Your task to perform on an android device: stop showing notifications on the lock screen Image 0: 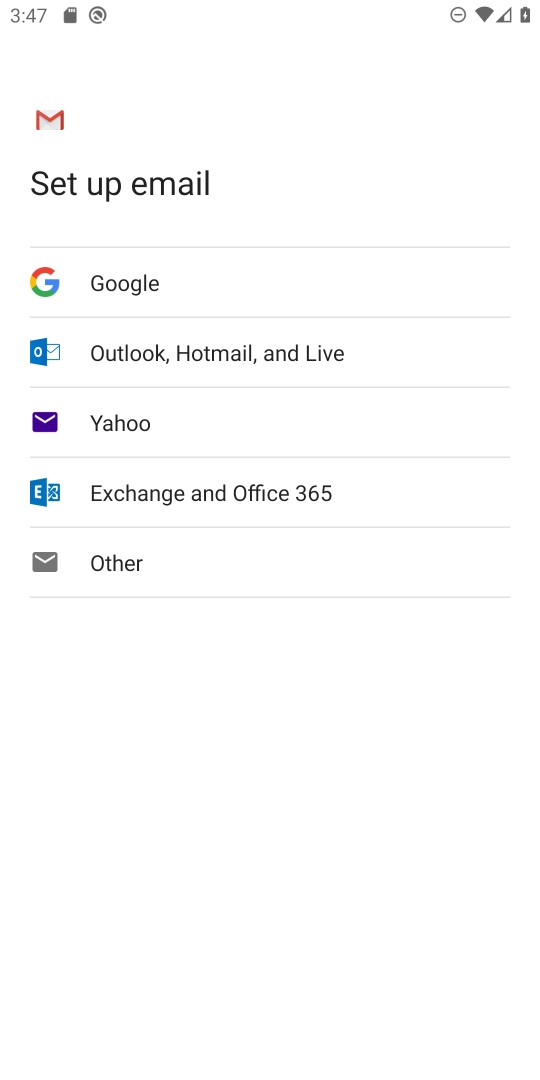
Step 0: press home button
Your task to perform on an android device: stop showing notifications on the lock screen Image 1: 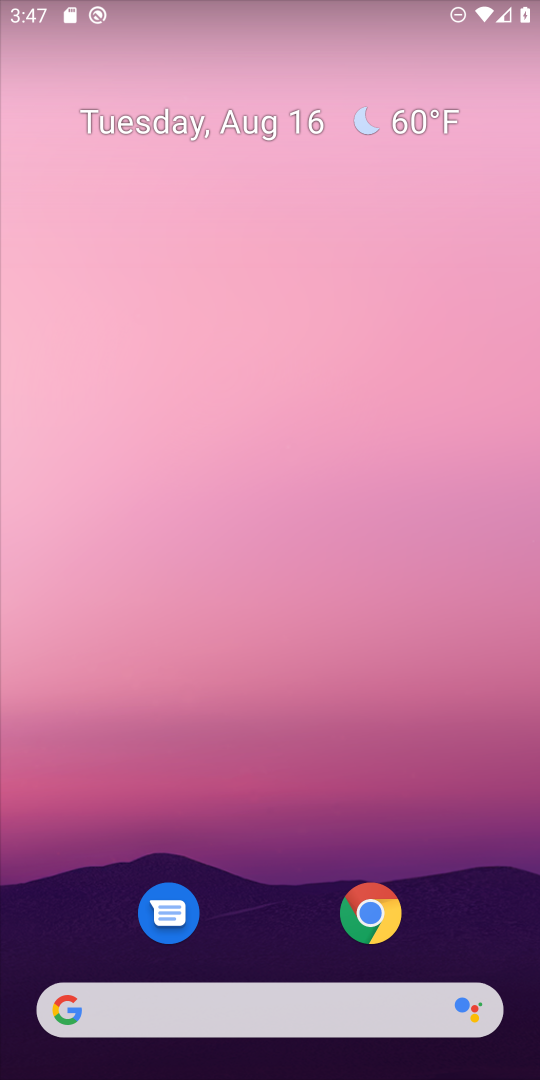
Step 1: drag from (500, 942) to (425, 150)
Your task to perform on an android device: stop showing notifications on the lock screen Image 2: 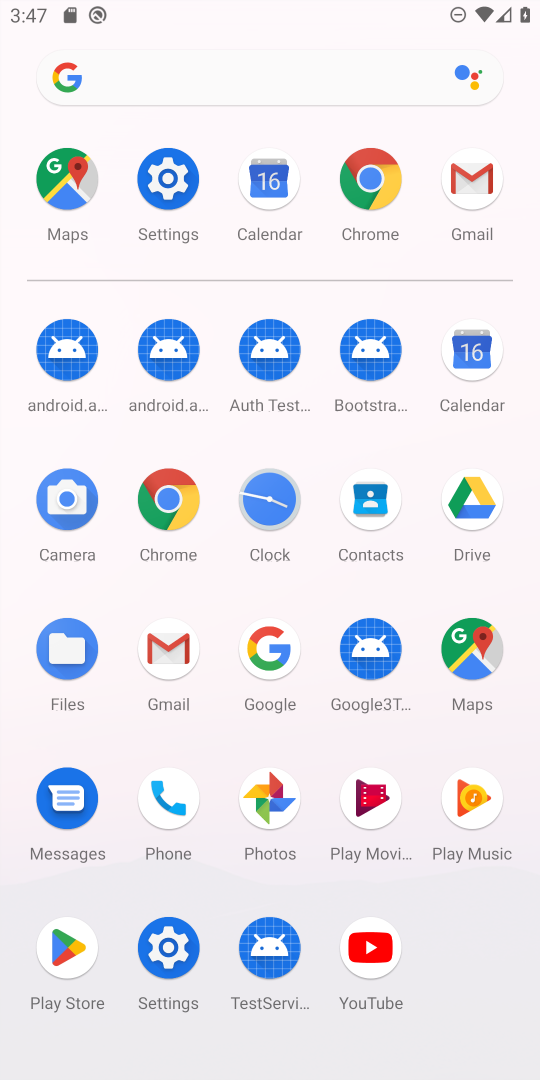
Step 2: click (169, 943)
Your task to perform on an android device: stop showing notifications on the lock screen Image 3: 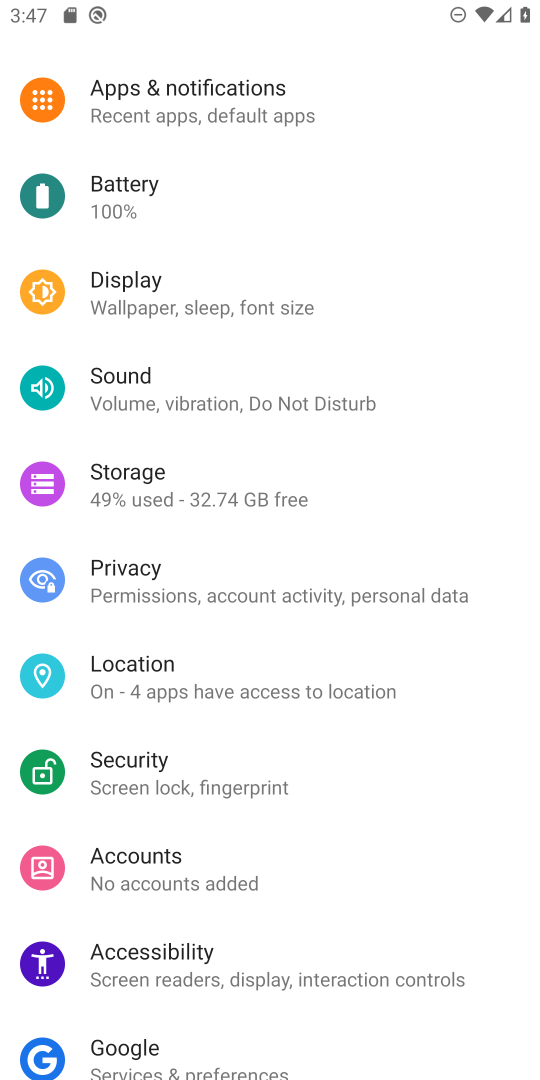
Step 3: drag from (308, 351) to (316, 677)
Your task to perform on an android device: stop showing notifications on the lock screen Image 4: 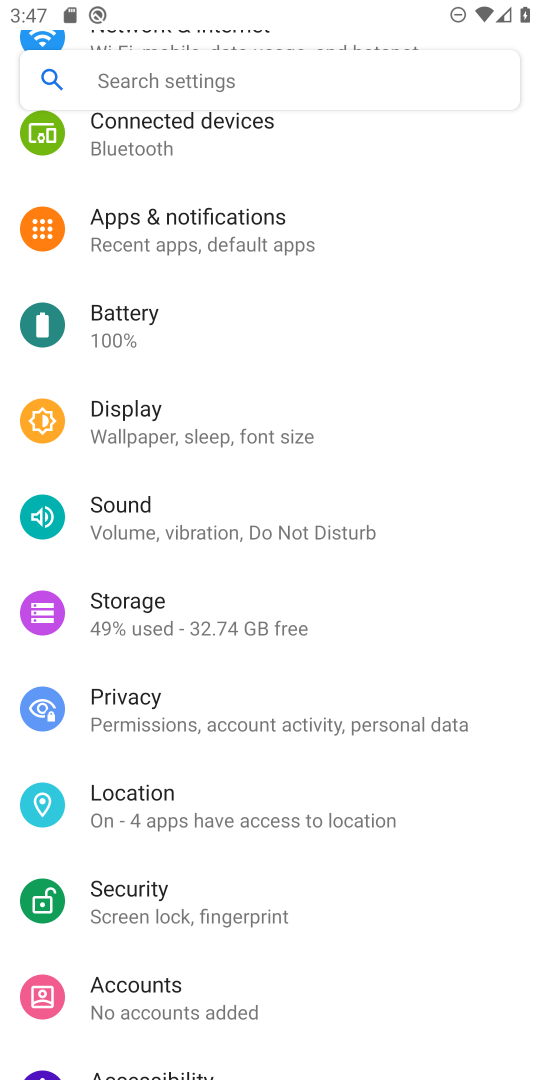
Step 4: drag from (332, 215) to (323, 512)
Your task to perform on an android device: stop showing notifications on the lock screen Image 5: 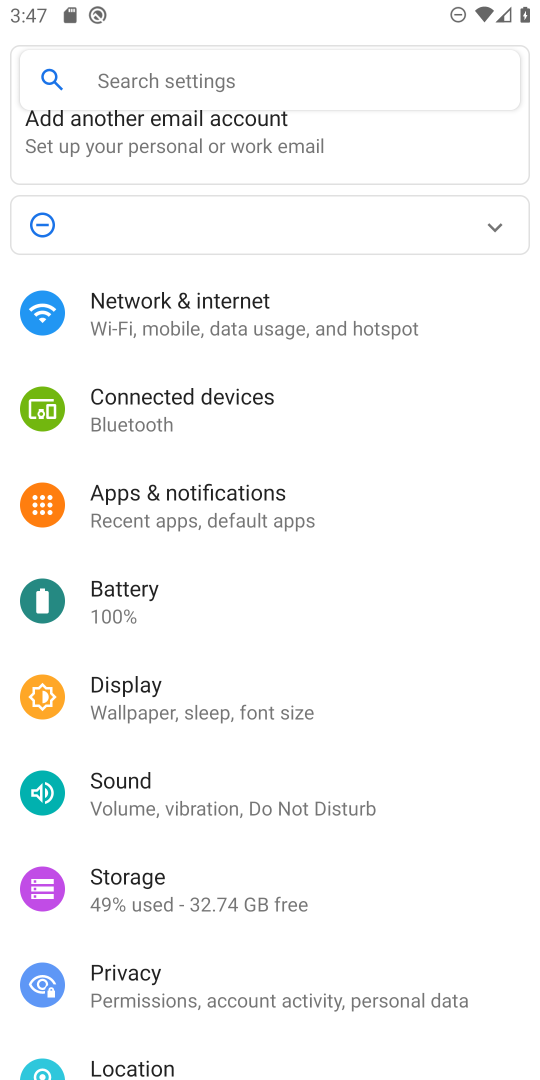
Step 5: click (189, 510)
Your task to perform on an android device: stop showing notifications on the lock screen Image 6: 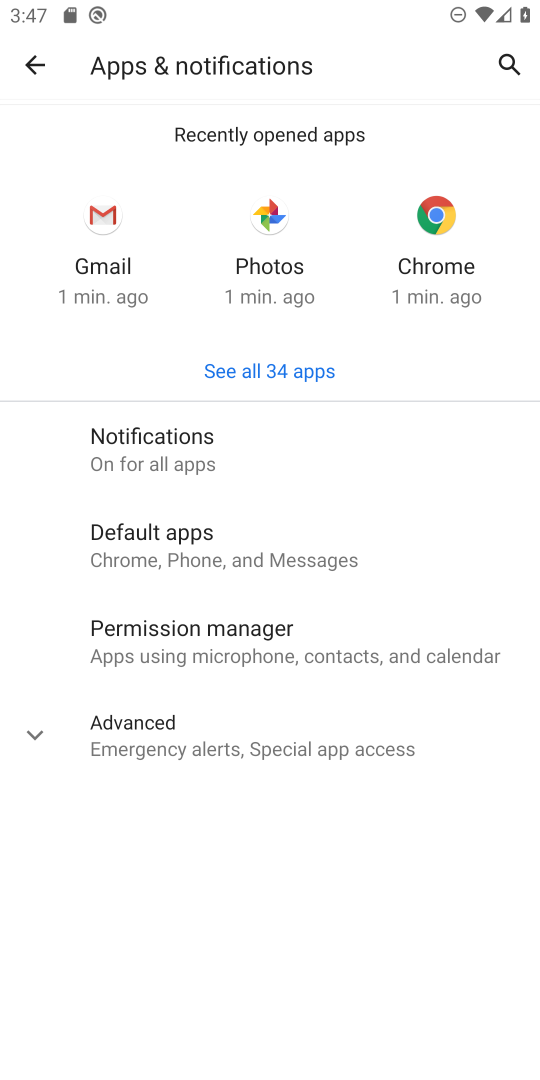
Step 6: click (153, 428)
Your task to perform on an android device: stop showing notifications on the lock screen Image 7: 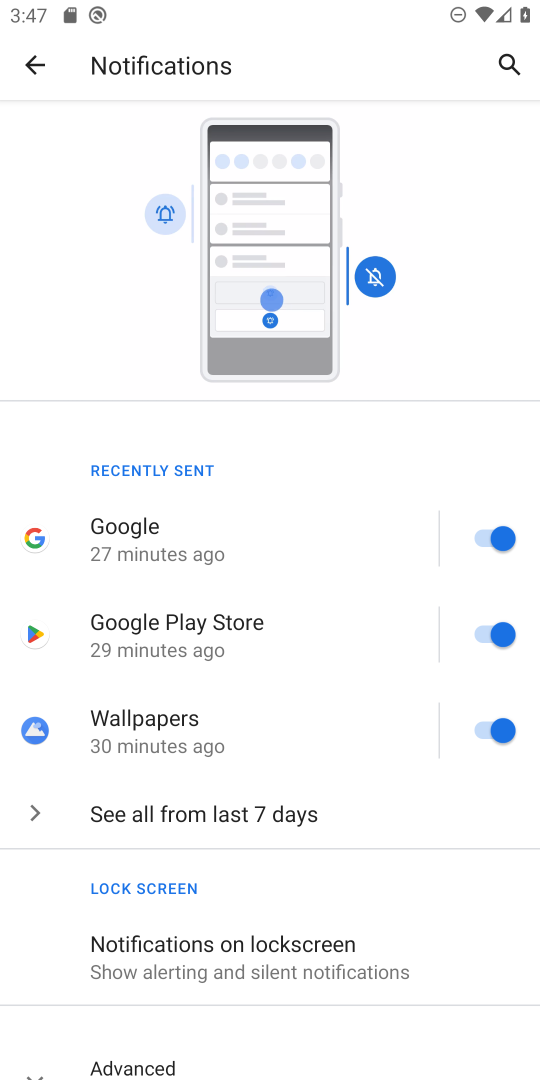
Step 7: drag from (406, 850) to (429, 269)
Your task to perform on an android device: stop showing notifications on the lock screen Image 8: 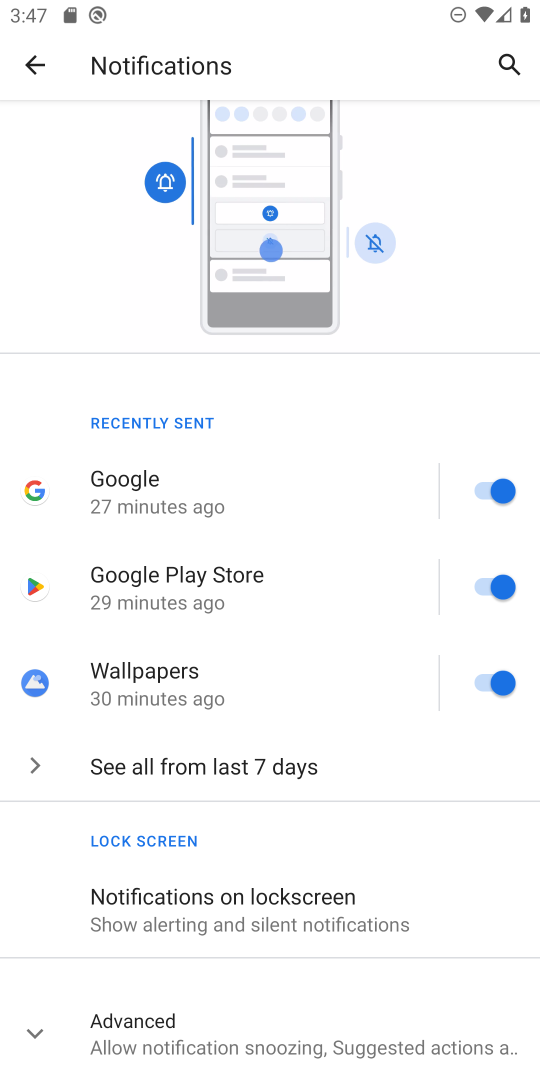
Step 8: click (31, 1030)
Your task to perform on an android device: stop showing notifications on the lock screen Image 9: 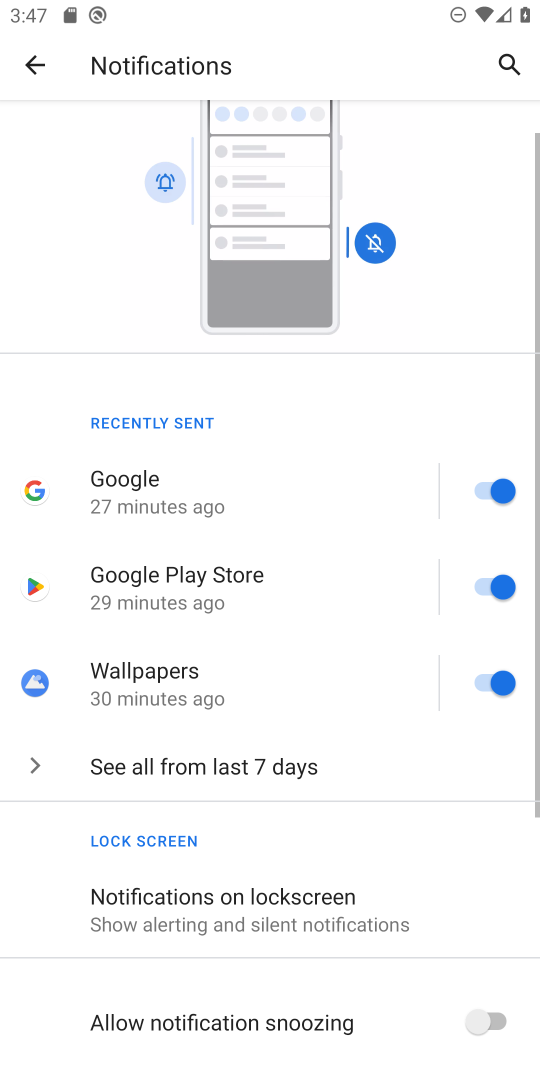
Step 9: click (215, 917)
Your task to perform on an android device: stop showing notifications on the lock screen Image 10: 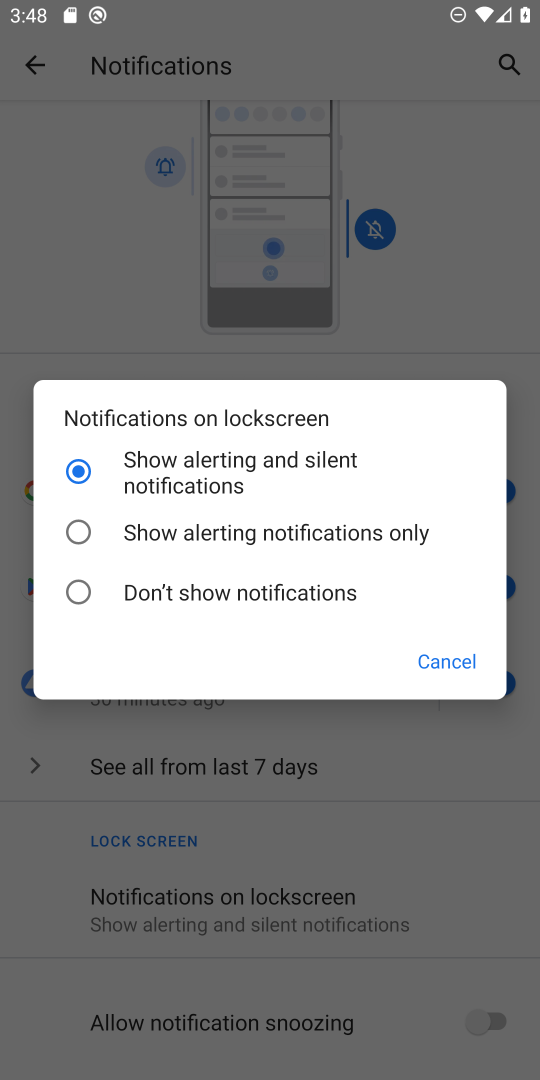
Step 10: click (76, 589)
Your task to perform on an android device: stop showing notifications on the lock screen Image 11: 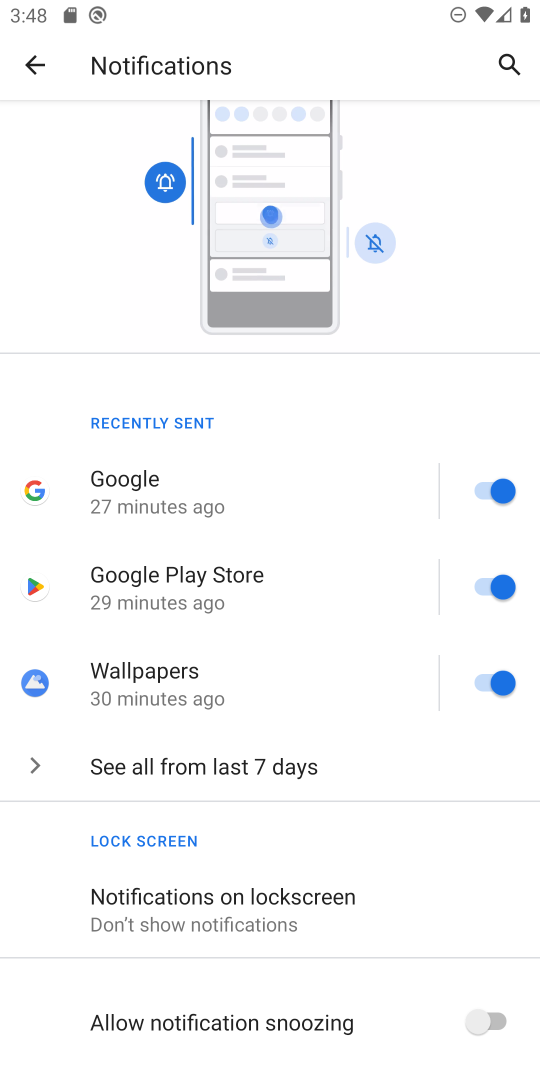
Step 11: task complete